Your task to perform on an android device: Search for Italian restaurants on Maps Image 0: 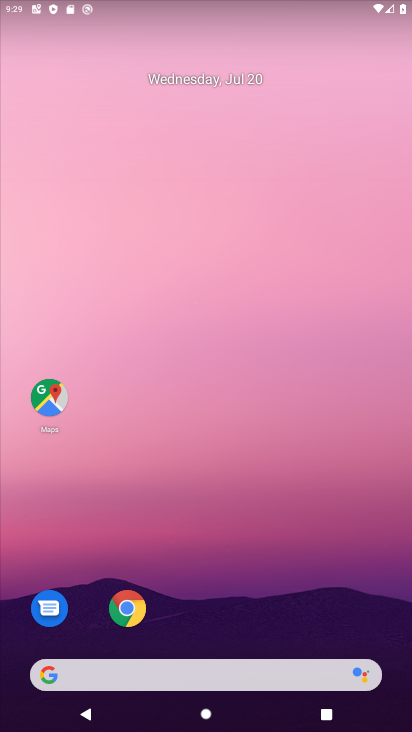
Step 0: click (50, 403)
Your task to perform on an android device: Search for Italian restaurants on Maps Image 1: 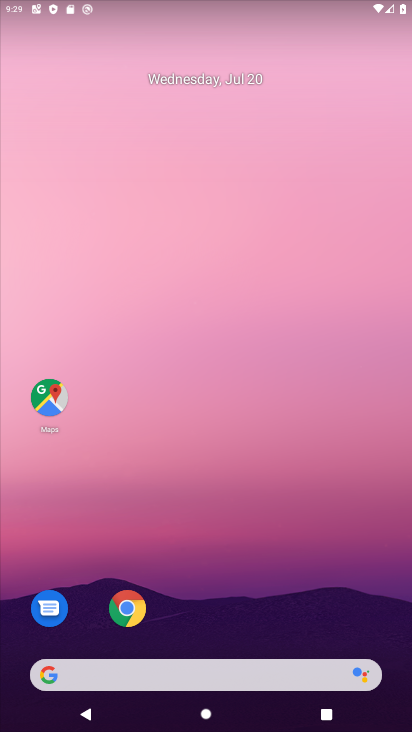
Step 1: click (50, 403)
Your task to perform on an android device: Search for Italian restaurants on Maps Image 2: 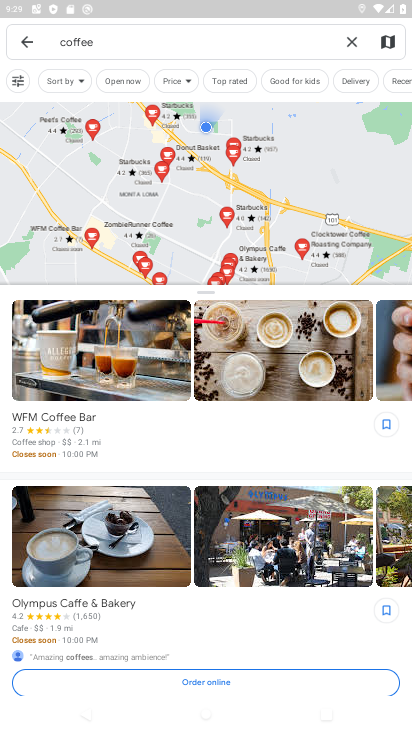
Step 2: click (352, 43)
Your task to perform on an android device: Search for Italian restaurants on Maps Image 3: 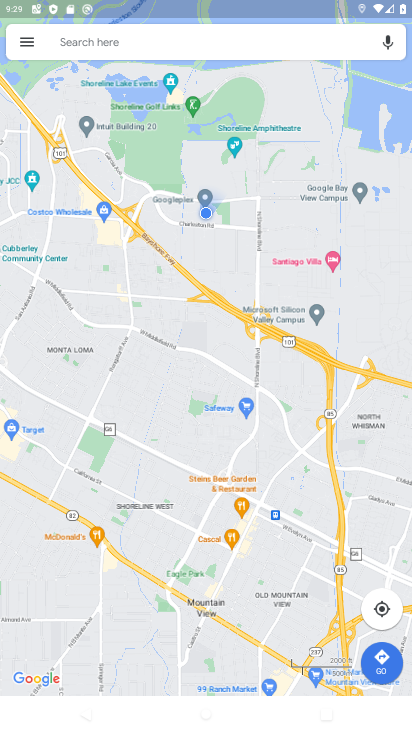
Step 3: click (130, 42)
Your task to perform on an android device: Search for Italian restaurants on Maps Image 4: 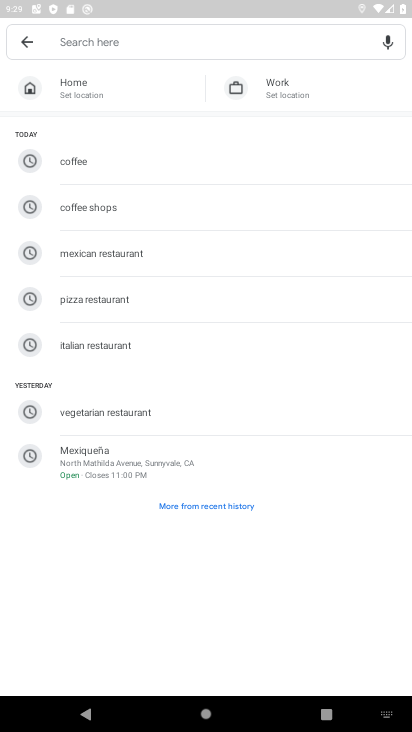
Step 4: click (116, 336)
Your task to perform on an android device: Search for Italian restaurants on Maps Image 5: 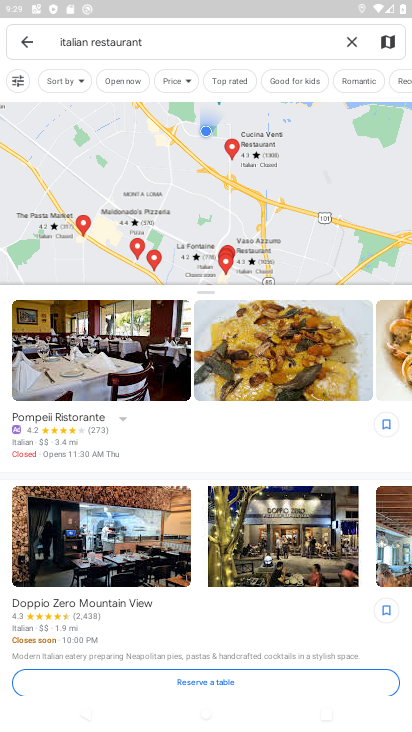
Step 5: task complete